Your task to perform on an android device: What's the weather today? Image 0: 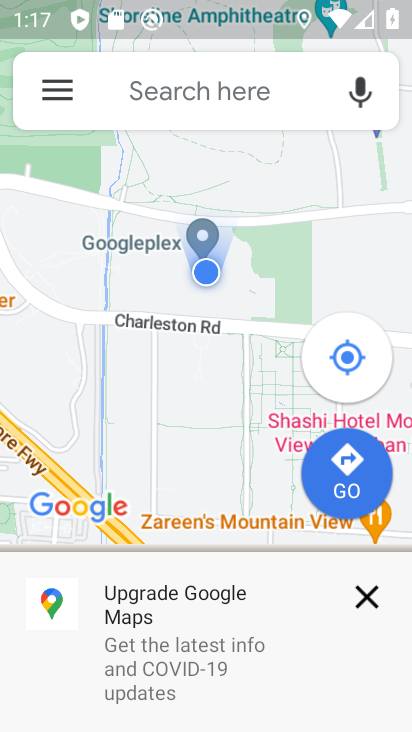
Step 0: press home button
Your task to perform on an android device: What's the weather today? Image 1: 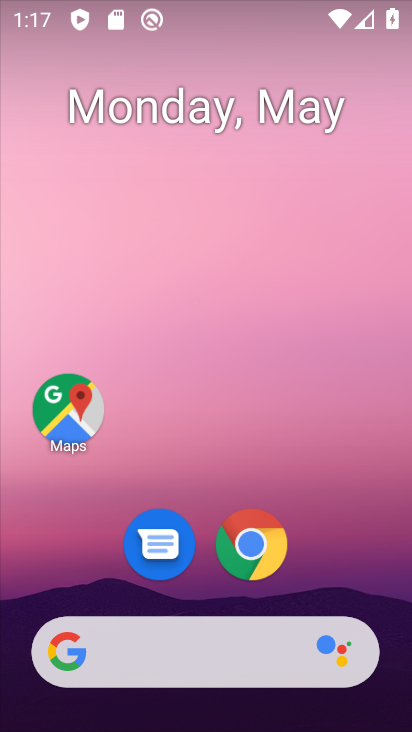
Step 1: click (167, 650)
Your task to perform on an android device: What's the weather today? Image 2: 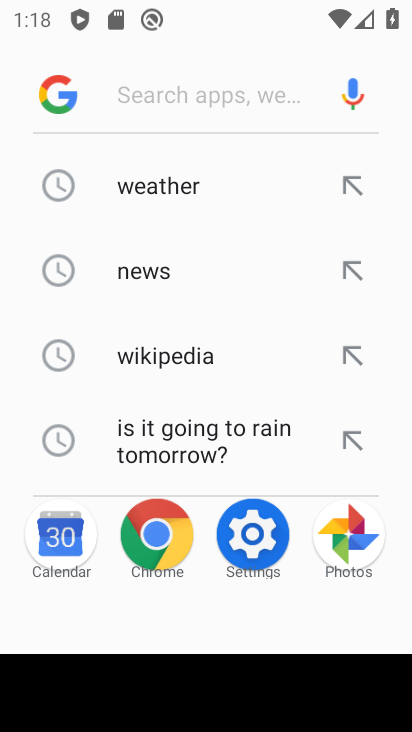
Step 2: click (172, 166)
Your task to perform on an android device: What's the weather today? Image 3: 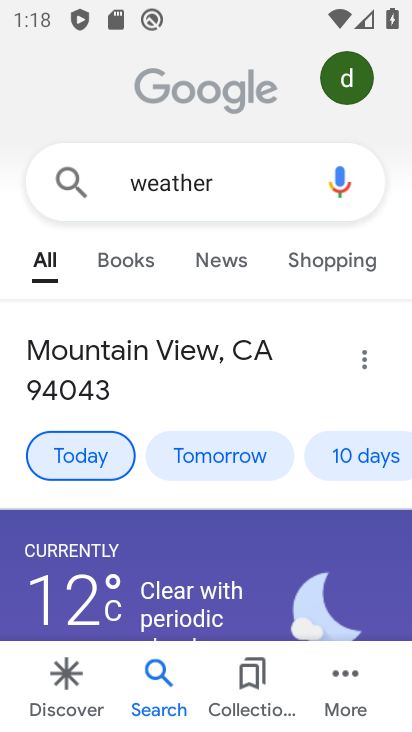
Step 3: task complete